Your task to perform on an android device: toggle sleep mode Image 0: 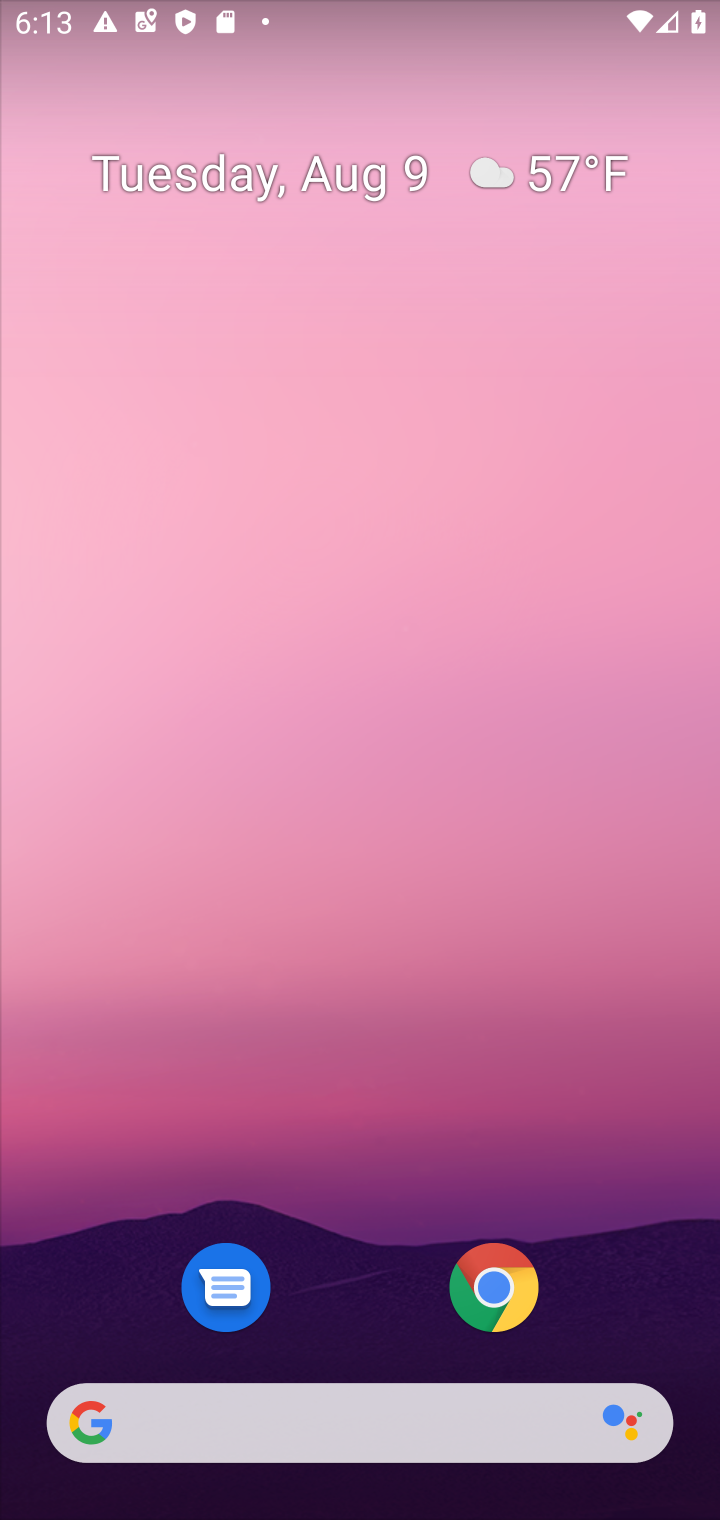
Step 0: drag from (380, 626) to (377, 399)
Your task to perform on an android device: toggle sleep mode Image 1: 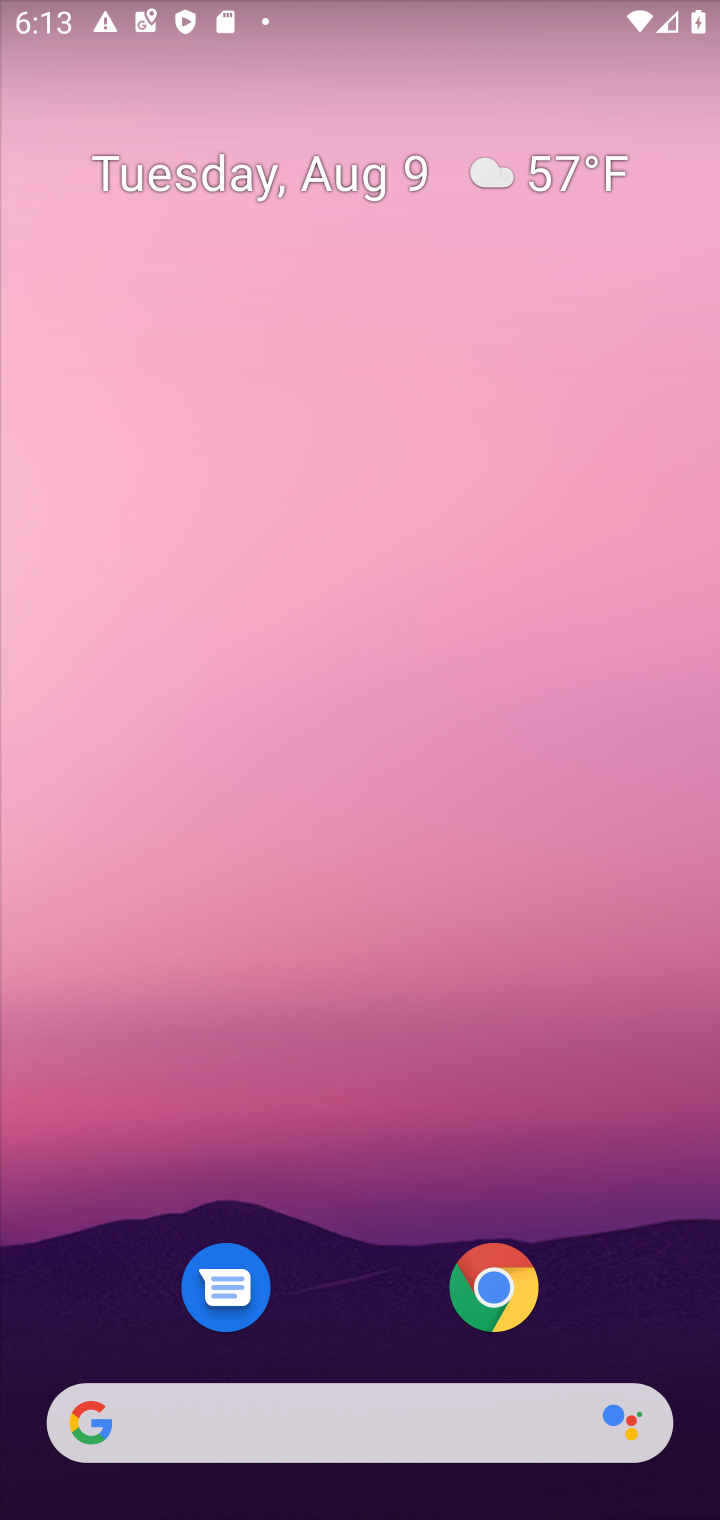
Step 1: task complete